Your task to perform on an android device: toggle priority inbox in the gmail app Image 0: 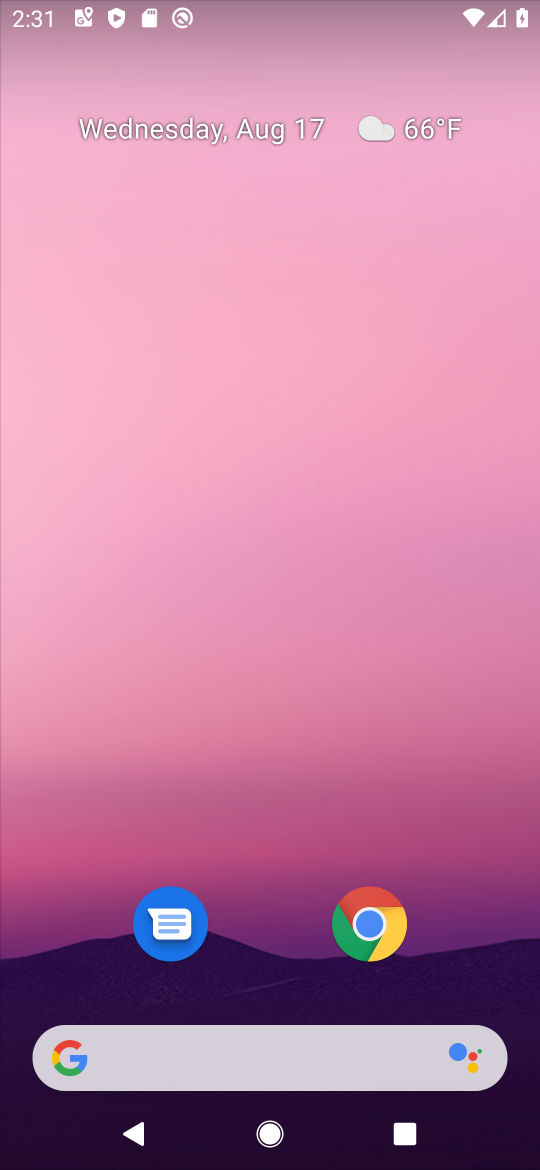
Step 0: drag from (166, 1089) to (200, 212)
Your task to perform on an android device: toggle priority inbox in the gmail app Image 1: 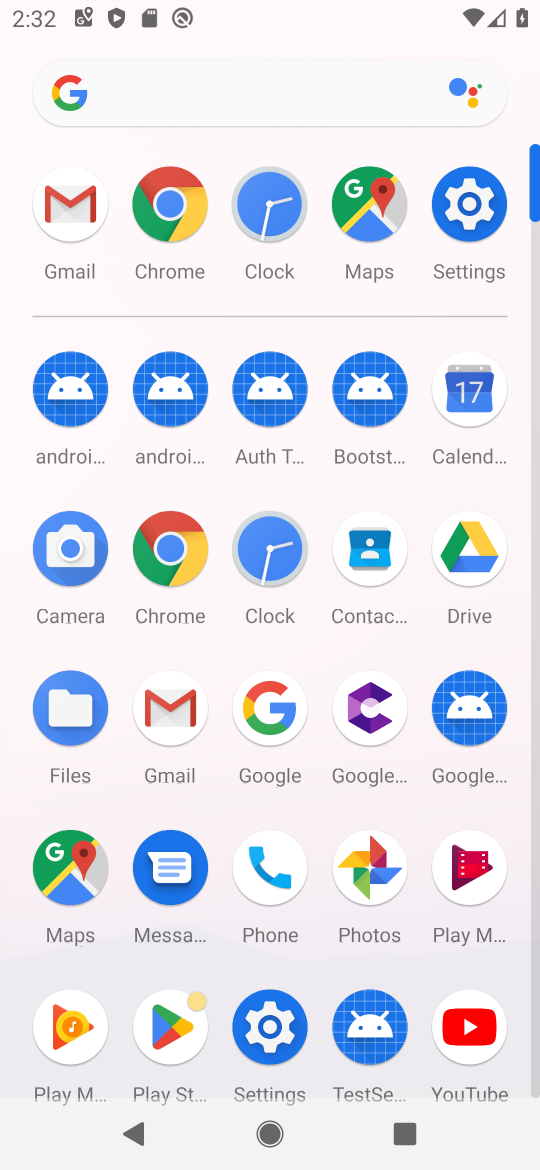
Step 1: click (67, 202)
Your task to perform on an android device: toggle priority inbox in the gmail app Image 2: 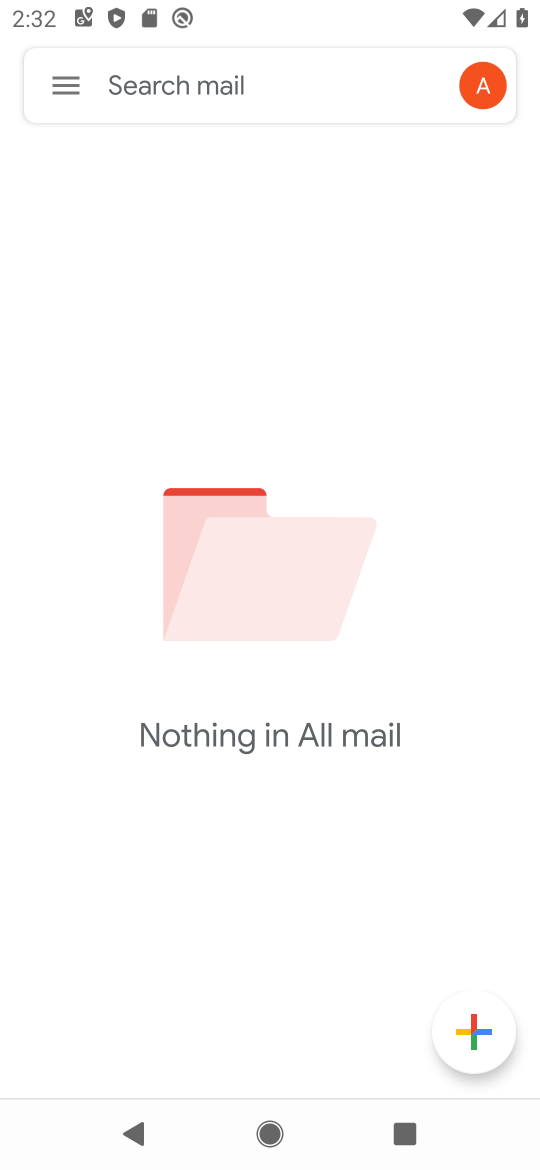
Step 2: click (68, 95)
Your task to perform on an android device: toggle priority inbox in the gmail app Image 3: 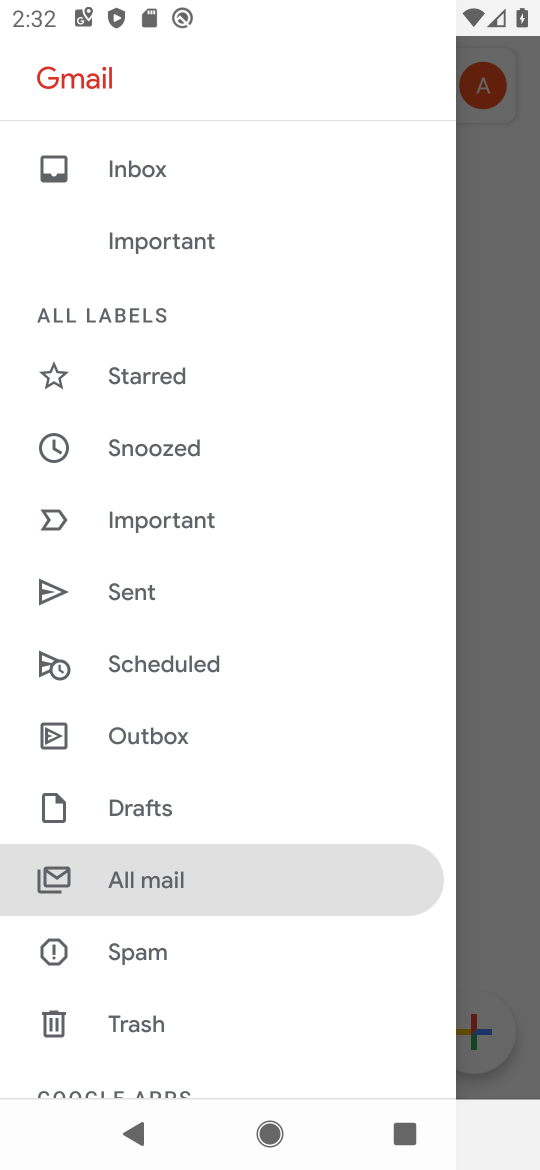
Step 3: drag from (212, 933) to (256, 783)
Your task to perform on an android device: toggle priority inbox in the gmail app Image 4: 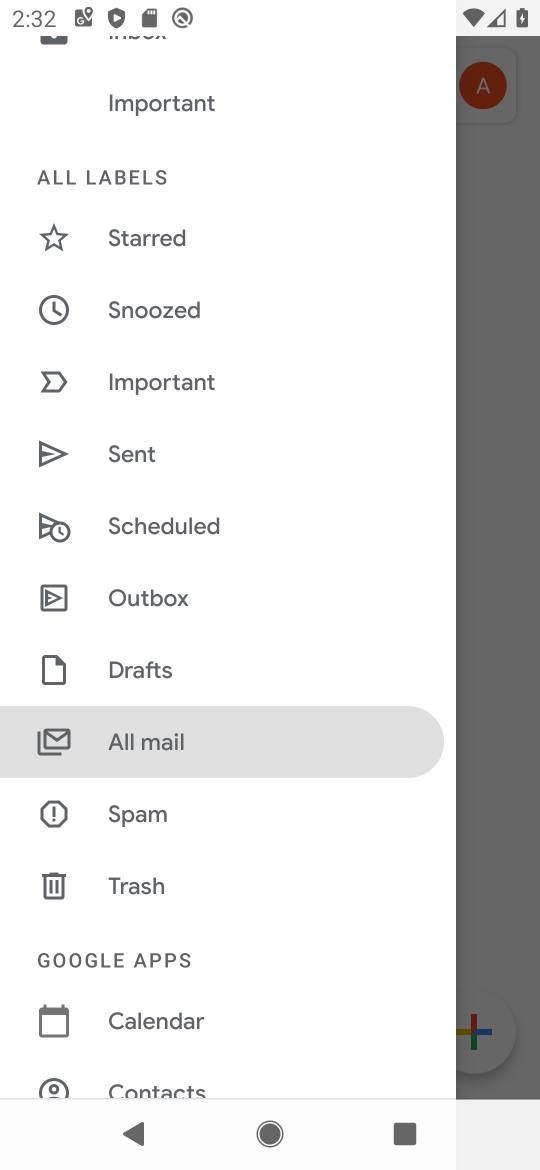
Step 4: drag from (208, 991) to (310, 808)
Your task to perform on an android device: toggle priority inbox in the gmail app Image 5: 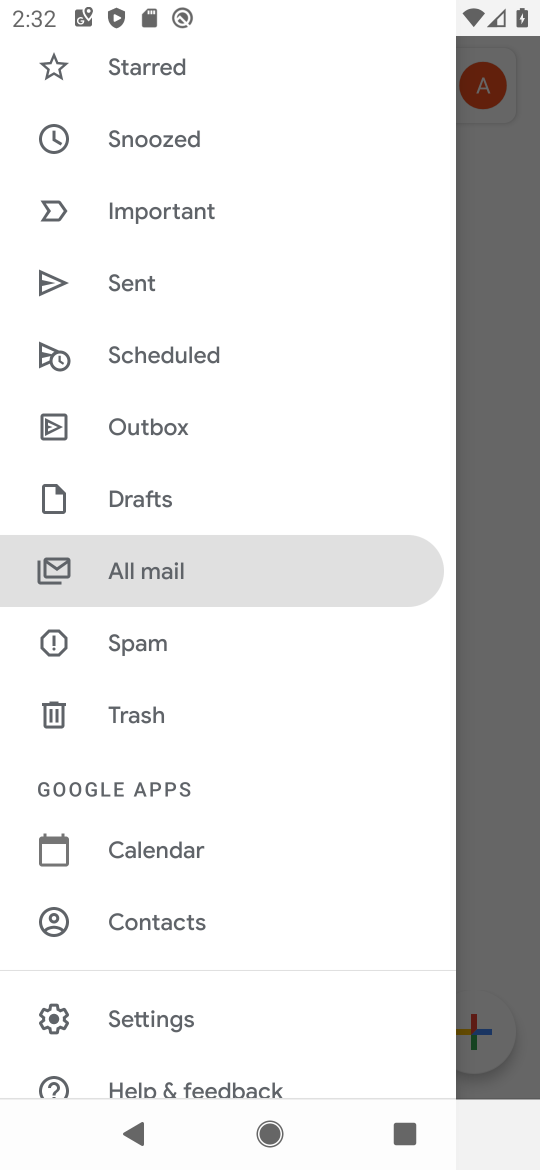
Step 5: click (161, 1016)
Your task to perform on an android device: toggle priority inbox in the gmail app Image 6: 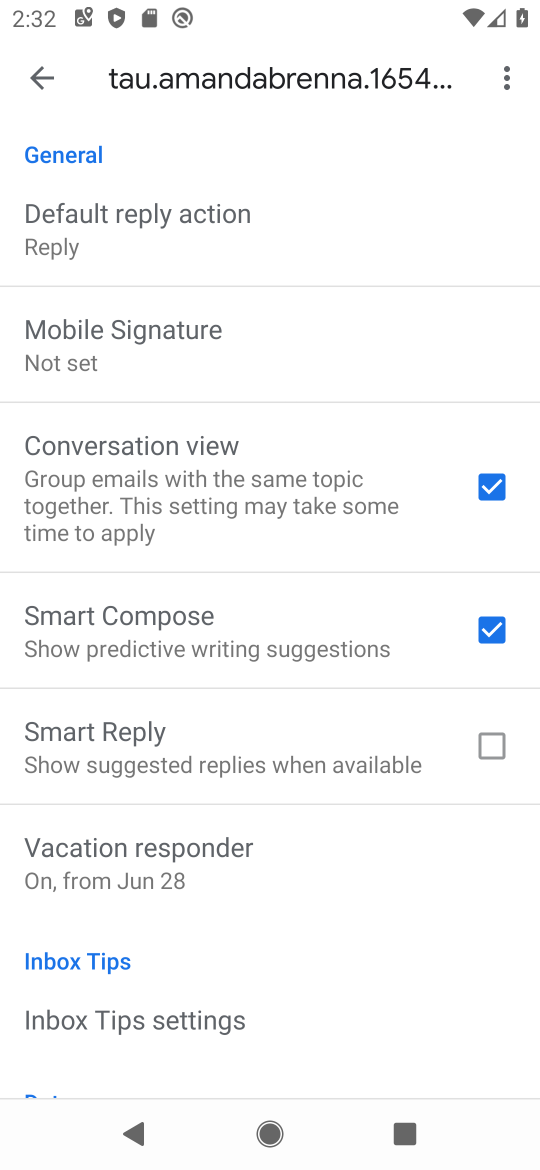
Step 6: drag from (220, 574) to (259, 750)
Your task to perform on an android device: toggle priority inbox in the gmail app Image 7: 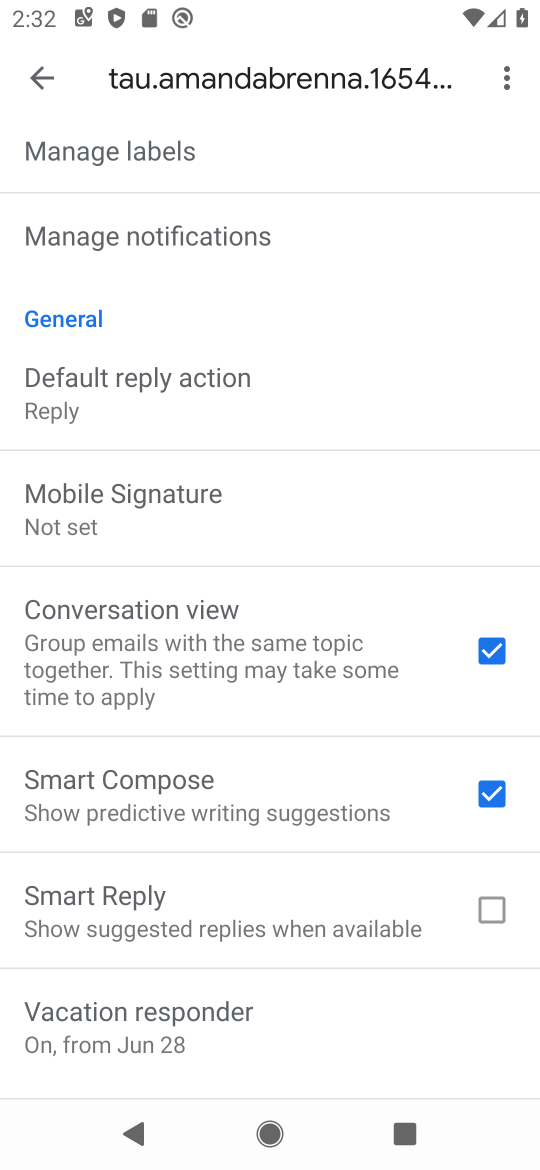
Step 7: drag from (210, 449) to (215, 671)
Your task to perform on an android device: toggle priority inbox in the gmail app Image 8: 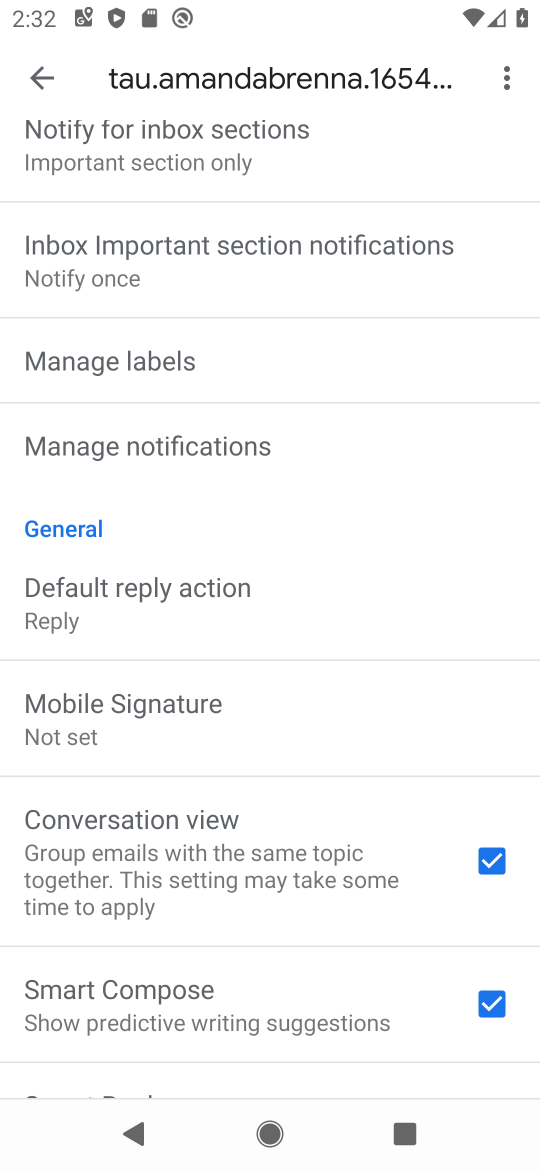
Step 8: drag from (215, 356) to (226, 511)
Your task to perform on an android device: toggle priority inbox in the gmail app Image 9: 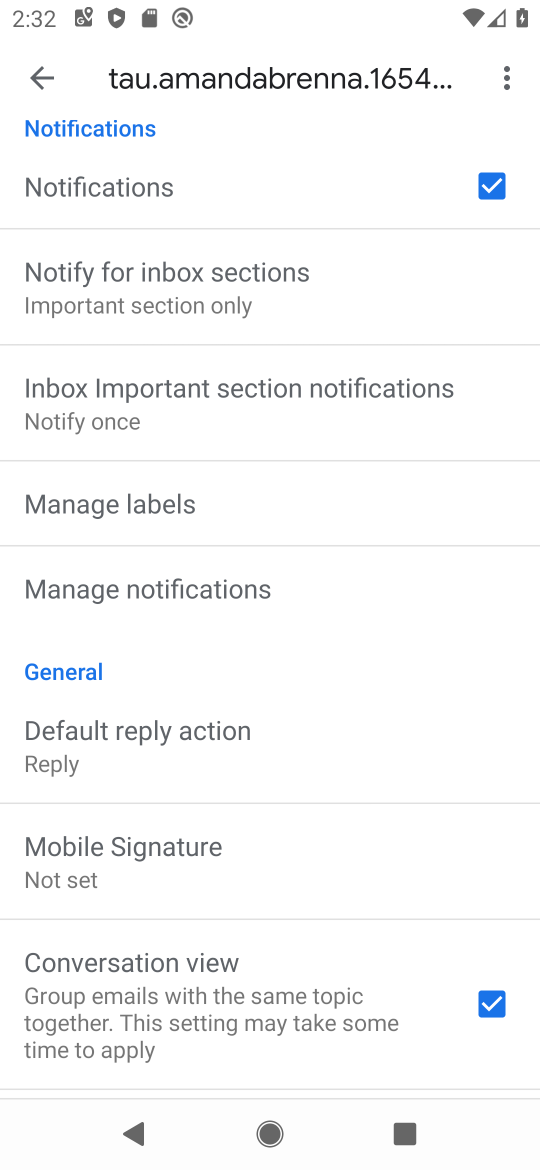
Step 9: drag from (249, 389) to (287, 581)
Your task to perform on an android device: toggle priority inbox in the gmail app Image 10: 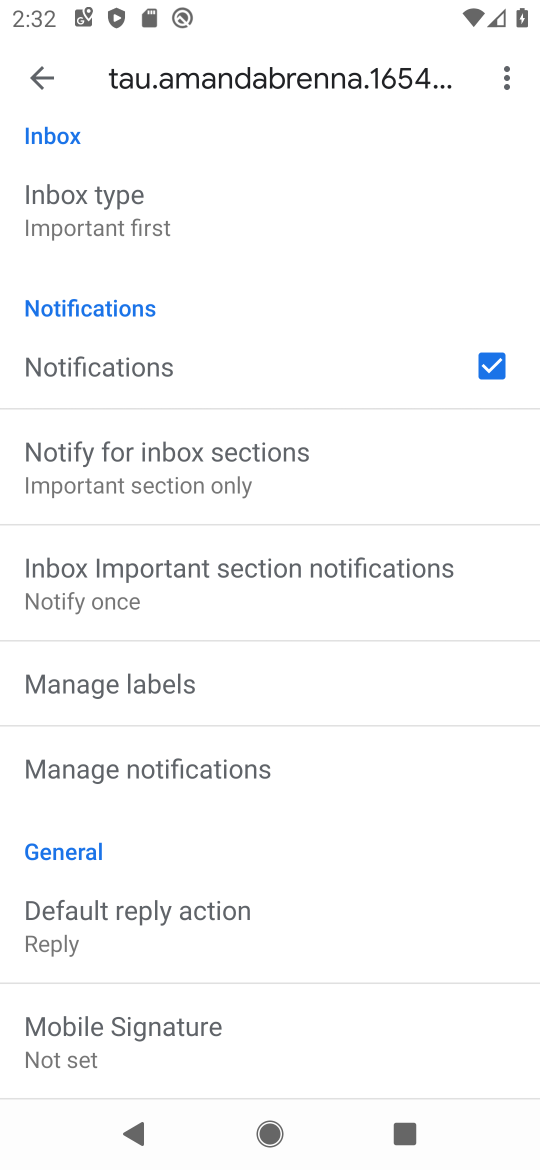
Step 10: click (128, 226)
Your task to perform on an android device: toggle priority inbox in the gmail app Image 11: 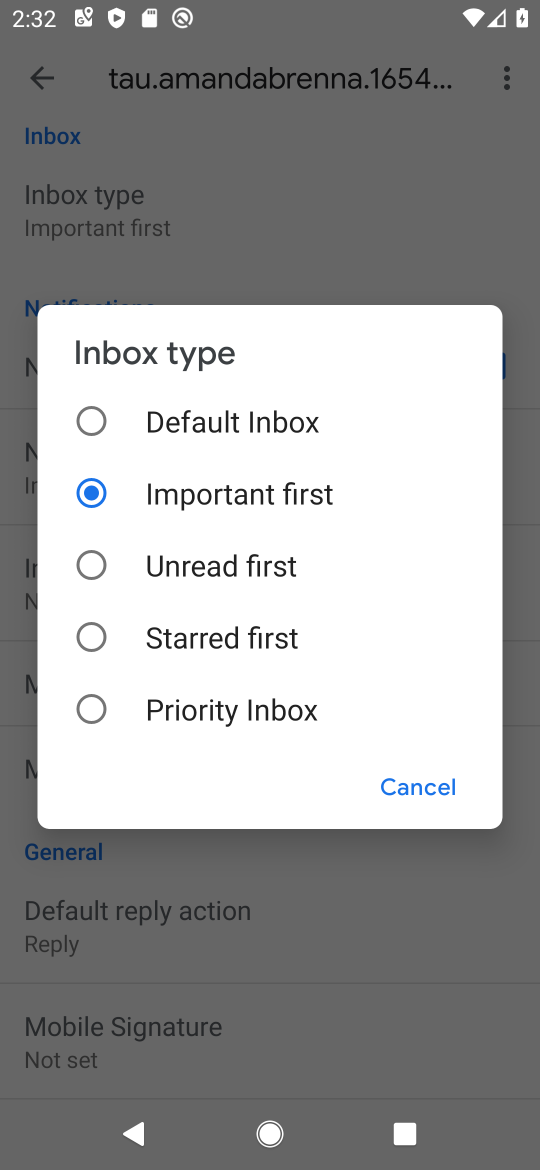
Step 11: click (95, 716)
Your task to perform on an android device: toggle priority inbox in the gmail app Image 12: 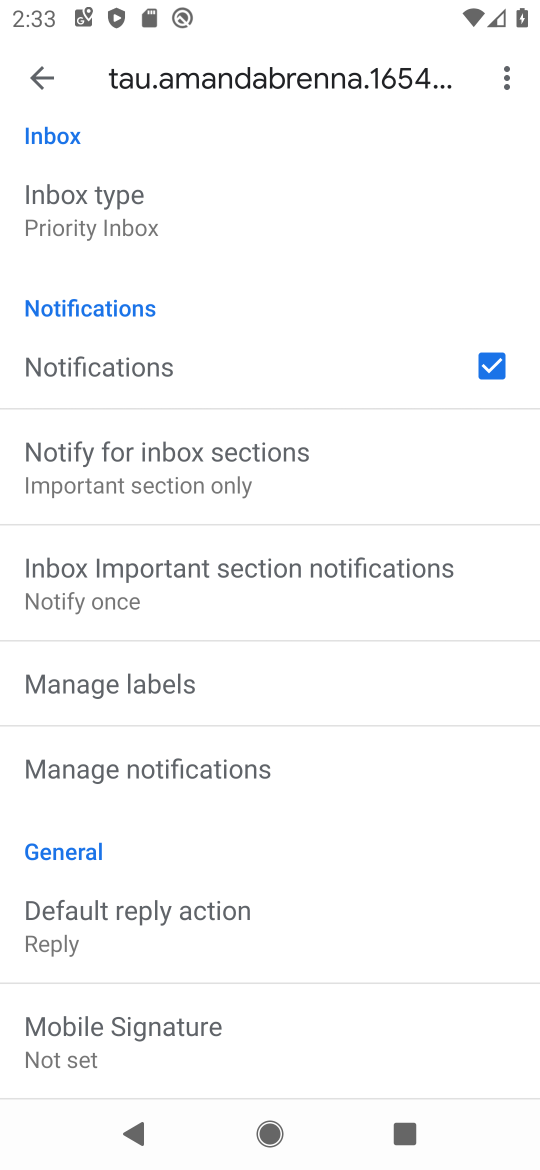
Step 12: task complete